Your task to perform on an android device: toggle notification dots Image 0: 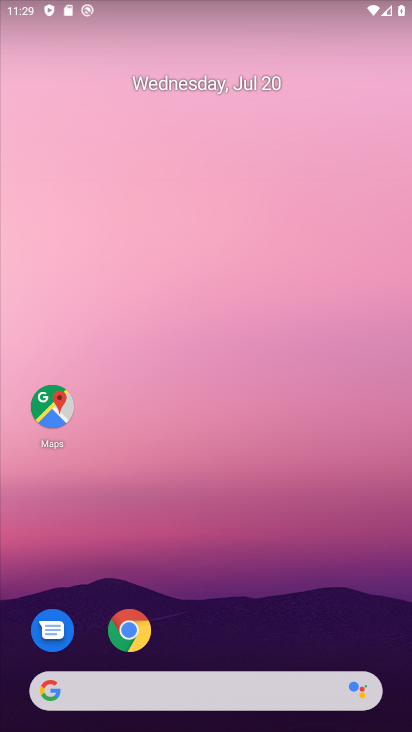
Step 0: drag from (196, 634) to (196, 292)
Your task to perform on an android device: toggle notification dots Image 1: 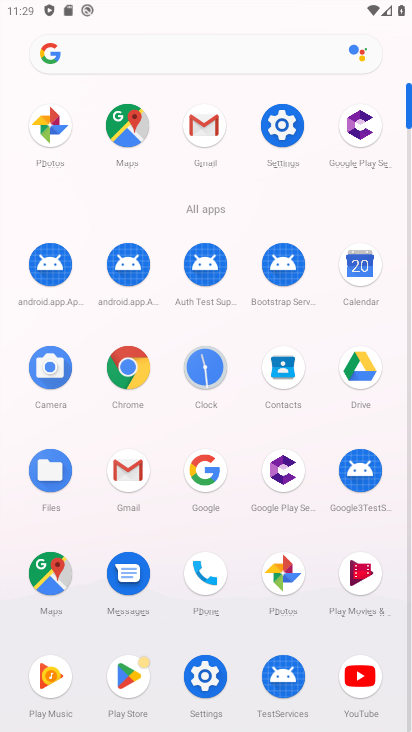
Step 1: click (210, 691)
Your task to perform on an android device: toggle notification dots Image 2: 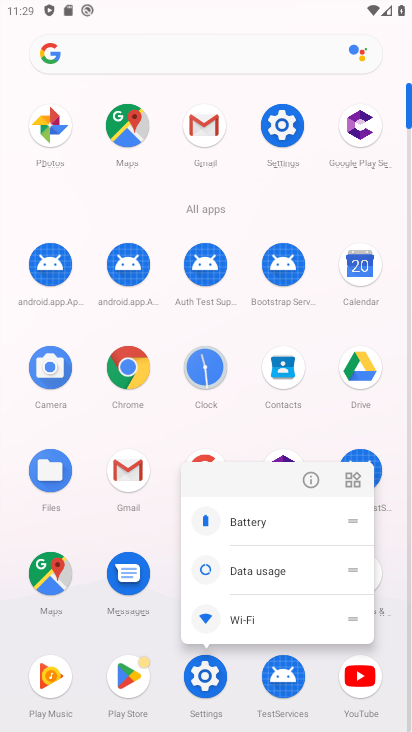
Step 2: click (317, 483)
Your task to perform on an android device: toggle notification dots Image 3: 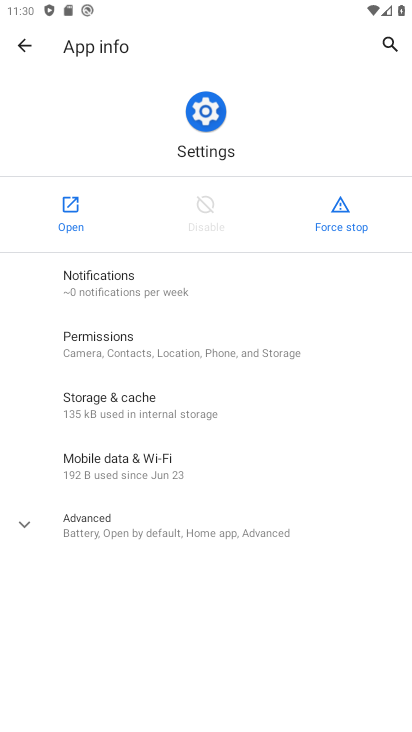
Step 3: click (52, 203)
Your task to perform on an android device: toggle notification dots Image 4: 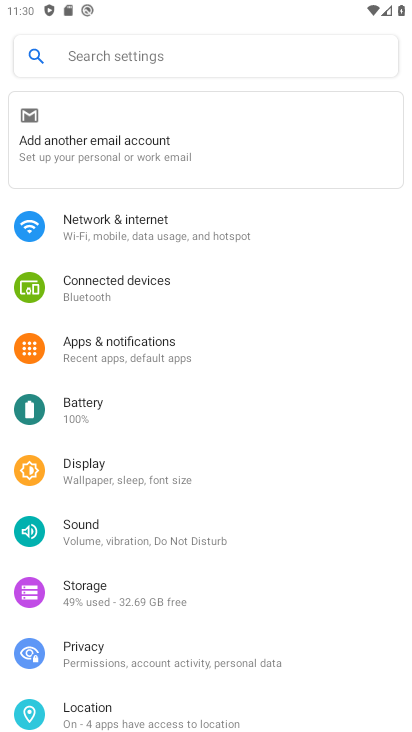
Step 4: click (101, 342)
Your task to perform on an android device: toggle notification dots Image 5: 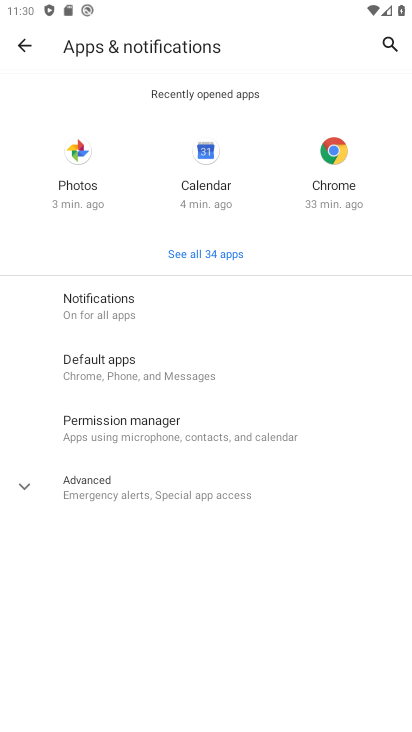
Step 5: click (149, 318)
Your task to perform on an android device: toggle notification dots Image 6: 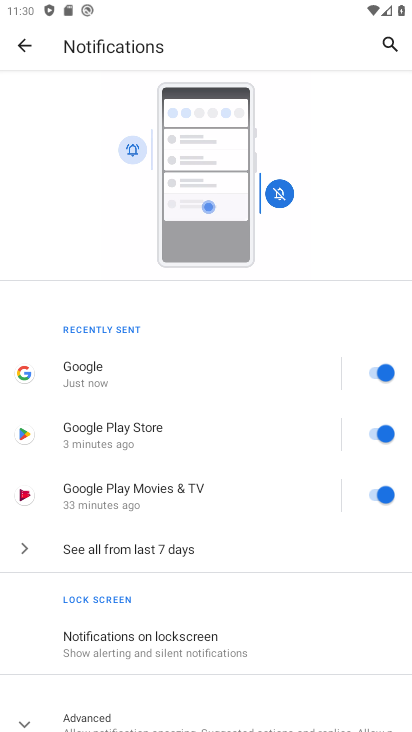
Step 6: drag from (222, 613) to (222, 163)
Your task to perform on an android device: toggle notification dots Image 7: 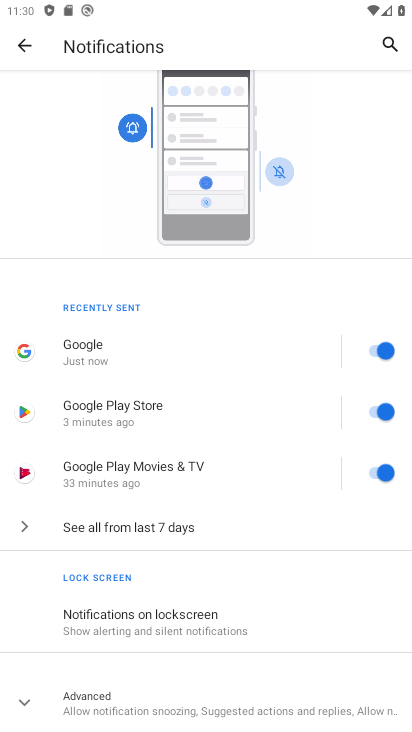
Step 7: click (160, 705)
Your task to perform on an android device: toggle notification dots Image 8: 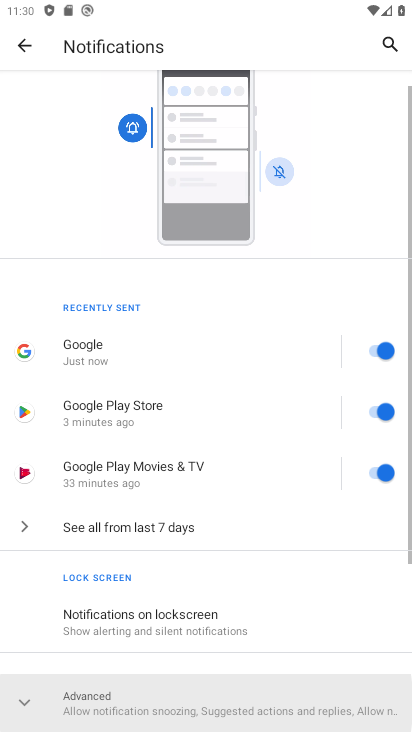
Step 8: drag from (312, 478) to (306, 85)
Your task to perform on an android device: toggle notification dots Image 9: 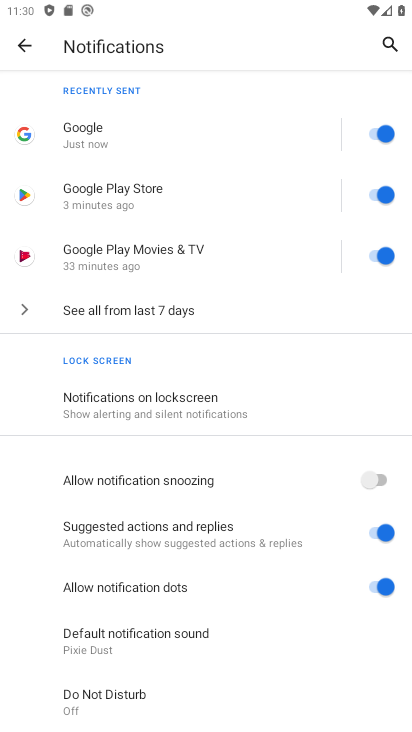
Step 9: drag from (299, 619) to (295, 232)
Your task to perform on an android device: toggle notification dots Image 10: 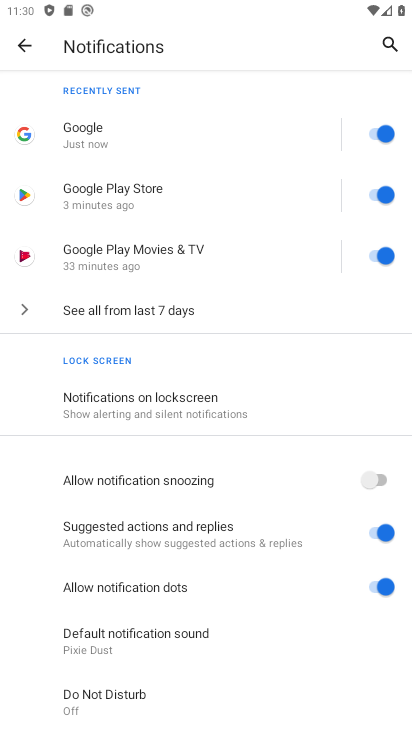
Step 10: click (380, 584)
Your task to perform on an android device: toggle notification dots Image 11: 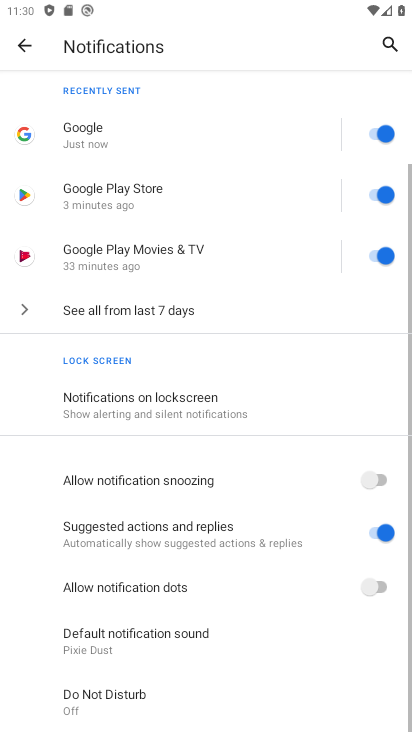
Step 11: task complete